Your task to perform on an android device: turn on data saver in the chrome app Image 0: 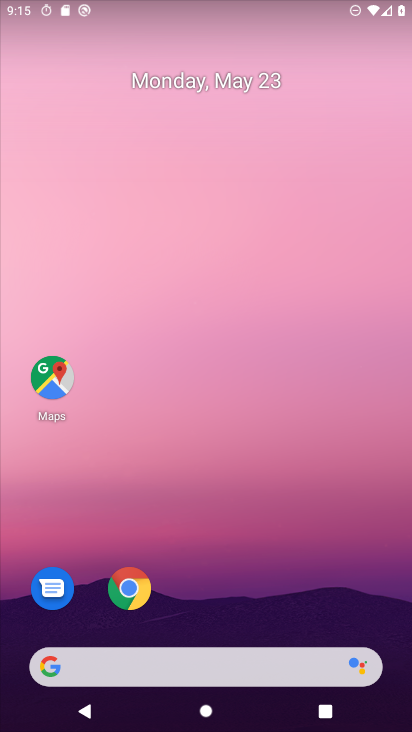
Step 0: click (129, 598)
Your task to perform on an android device: turn on data saver in the chrome app Image 1: 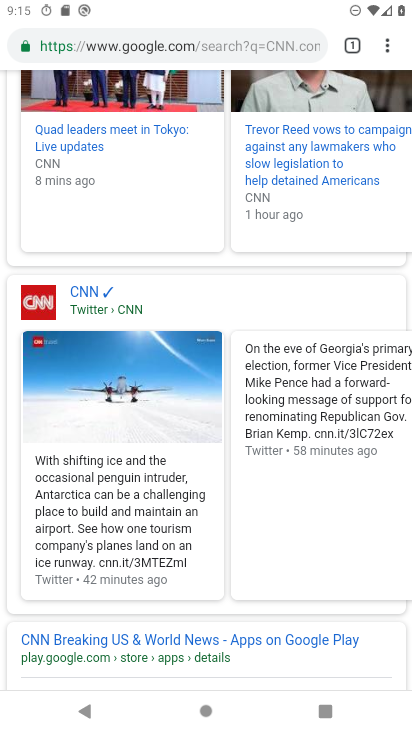
Step 1: click (386, 45)
Your task to perform on an android device: turn on data saver in the chrome app Image 2: 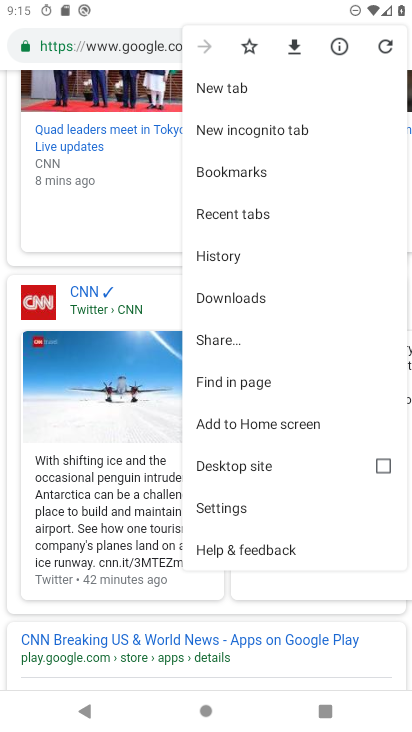
Step 2: click (228, 511)
Your task to perform on an android device: turn on data saver in the chrome app Image 3: 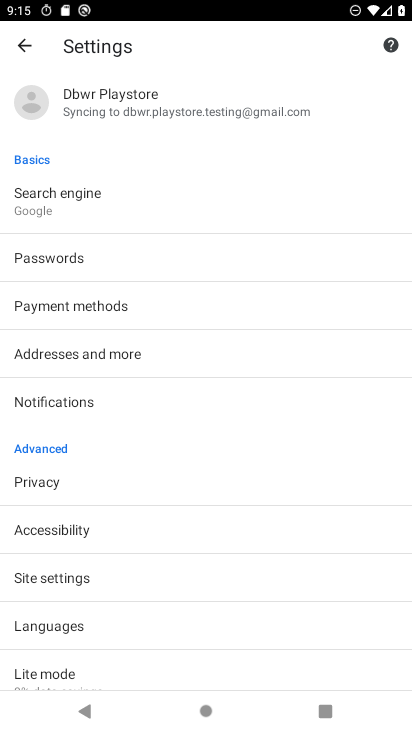
Step 3: click (57, 665)
Your task to perform on an android device: turn on data saver in the chrome app Image 4: 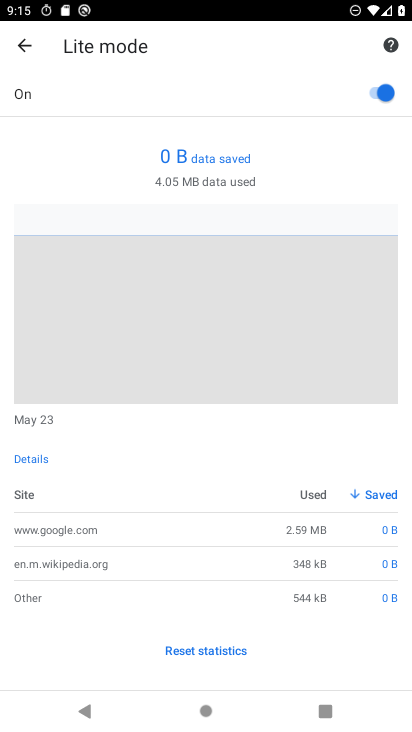
Step 4: task complete